Your task to perform on an android device: turn on wifi Image 0: 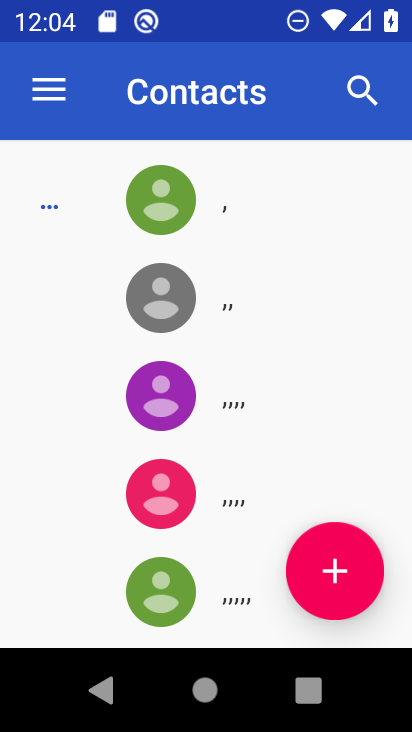
Step 0: press home button
Your task to perform on an android device: turn on wifi Image 1: 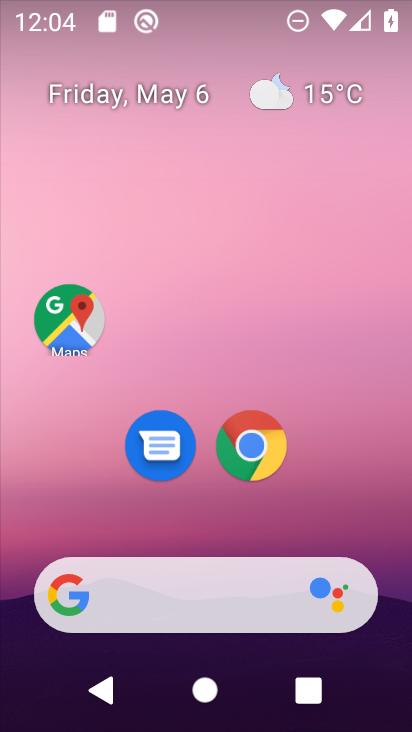
Step 1: drag from (216, 525) to (207, 37)
Your task to perform on an android device: turn on wifi Image 2: 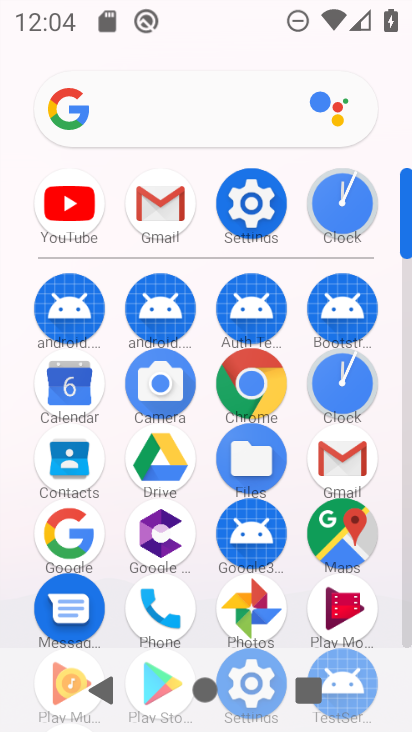
Step 2: click (264, 188)
Your task to perform on an android device: turn on wifi Image 3: 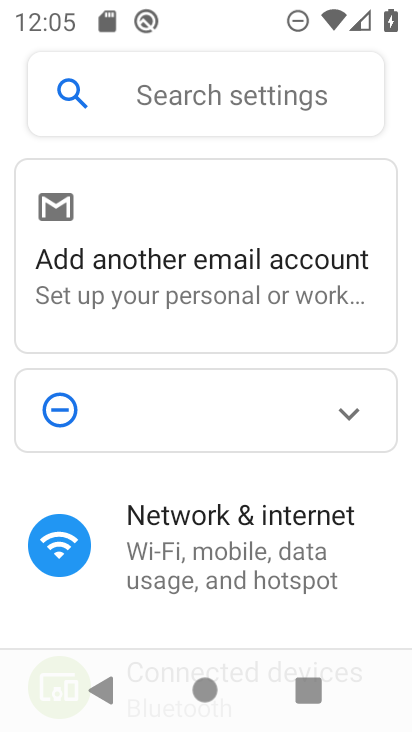
Step 3: drag from (213, 586) to (237, 171)
Your task to perform on an android device: turn on wifi Image 4: 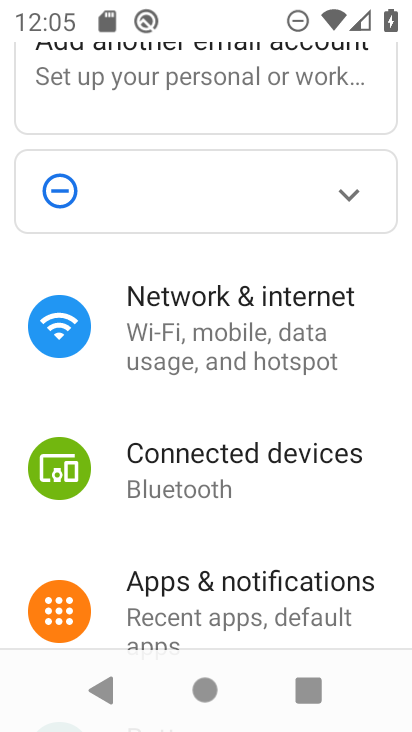
Step 4: click (249, 327)
Your task to perform on an android device: turn on wifi Image 5: 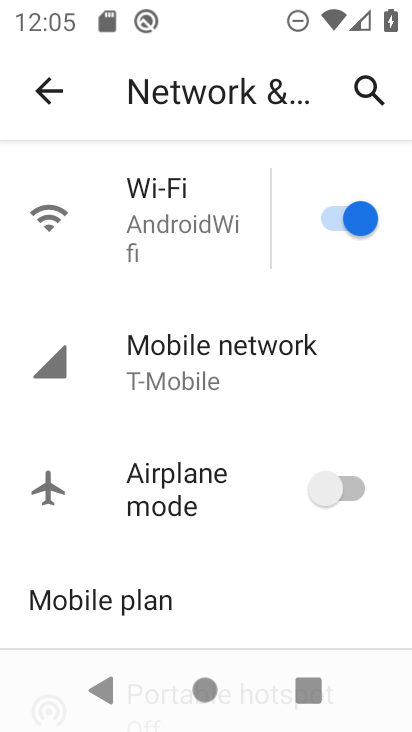
Step 5: click (201, 222)
Your task to perform on an android device: turn on wifi Image 6: 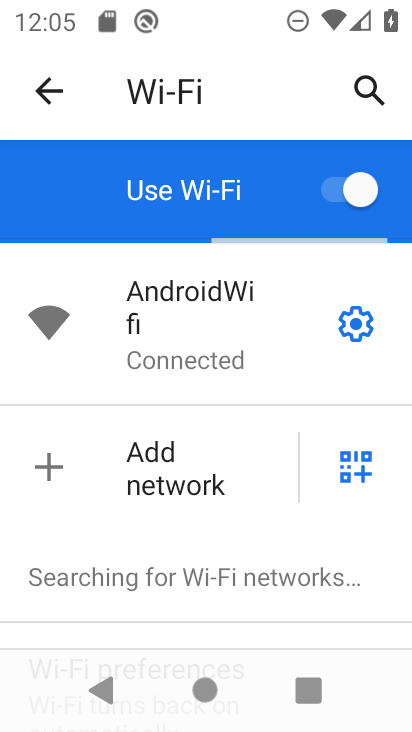
Step 6: task complete